Your task to perform on an android device: see creations saved in the google photos Image 0: 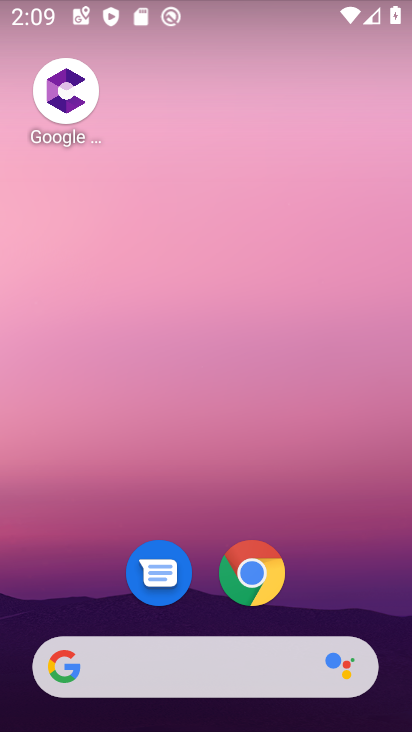
Step 0: drag from (115, 546) to (273, 145)
Your task to perform on an android device: see creations saved in the google photos Image 1: 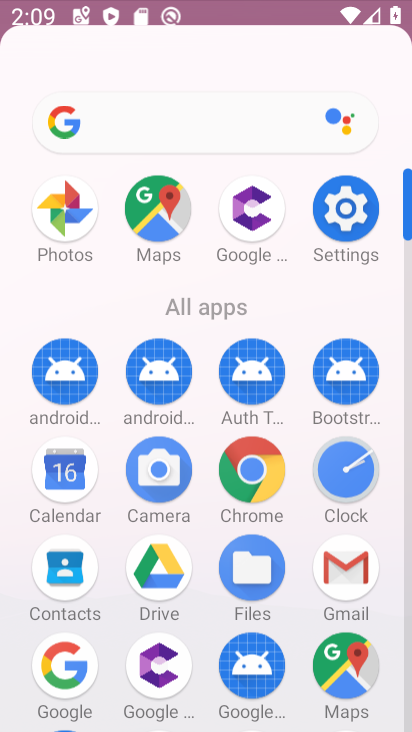
Step 1: drag from (241, 621) to (307, 409)
Your task to perform on an android device: see creations saved in the google photos Image 2: 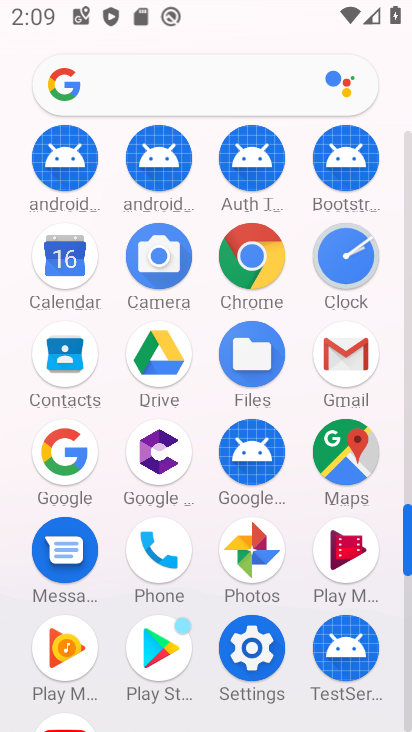
Step 2: click (262, 554)
Your task to perform on an android device: see creations saved in the google photos Image 3: 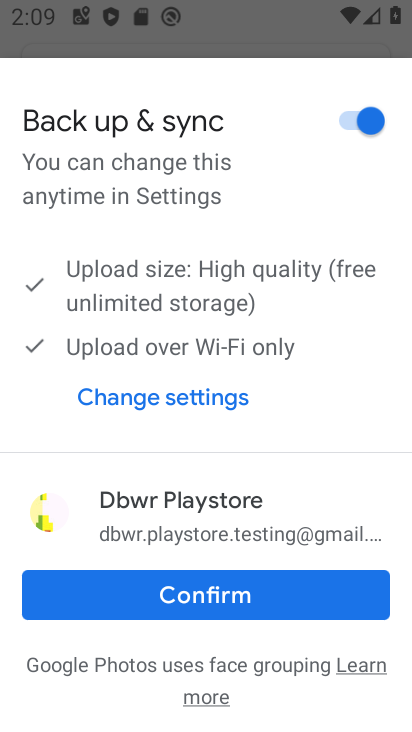
Step 3: click (231, 600)
Your task to perform on an android device: see creations saved in the google photos Image 4: 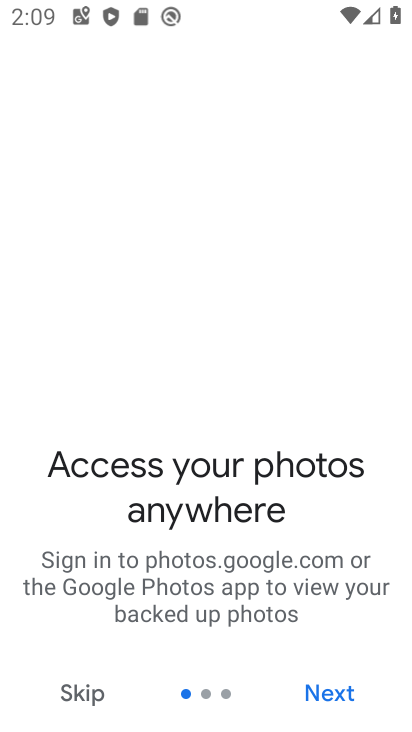
Step 4: click (323, 686)
Your task to perform on an android device: see creations saved in the google photos Image 5: 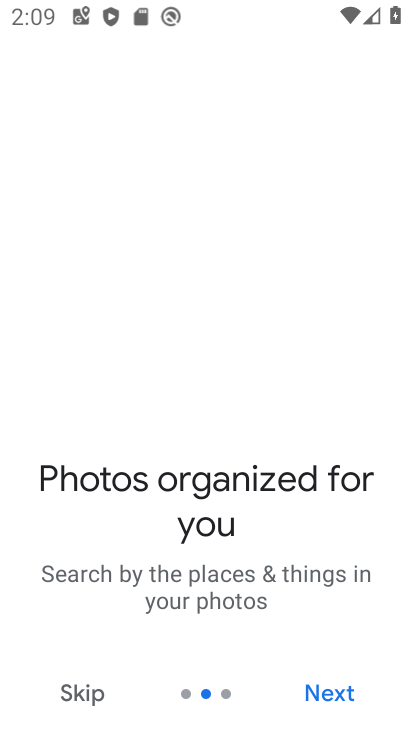
Step 5: click (333, 698)
Your task to perform on an android device: see creations saved in the google photos Image 6: 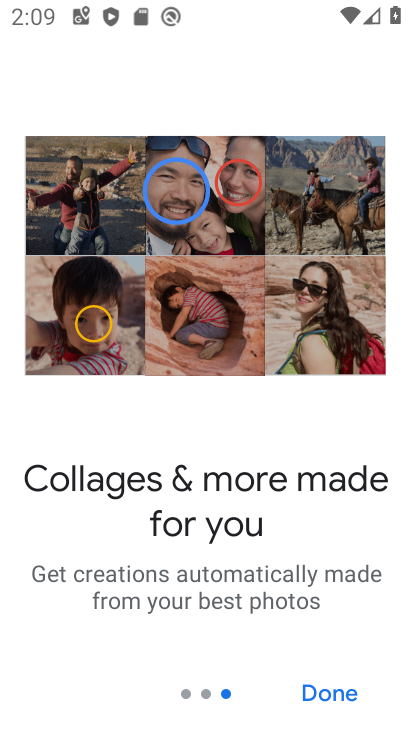
Step 6: click (333, 698)
Your task to perform on an android device: see creations saved in the google photos Image 7: 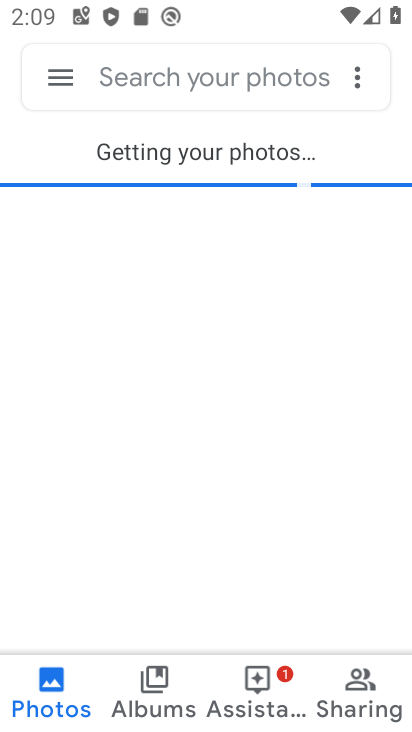
Step 7: click (193, 90)
Your task to perform on an android device: see creations saved in the google photos Image 8: 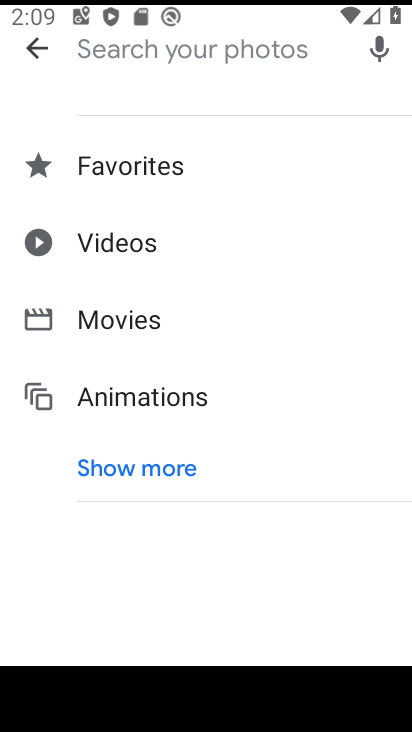
Step 8: click (158, 470)
Your task to perform on an android device: see creations saved in the google photos Image 9: 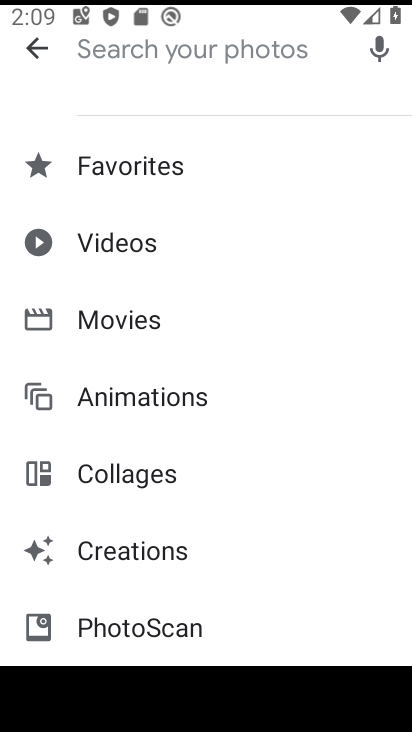
Step 9: click (169, 559)
Your task to perform on an android device: see creations saved in the google photos Image 10: 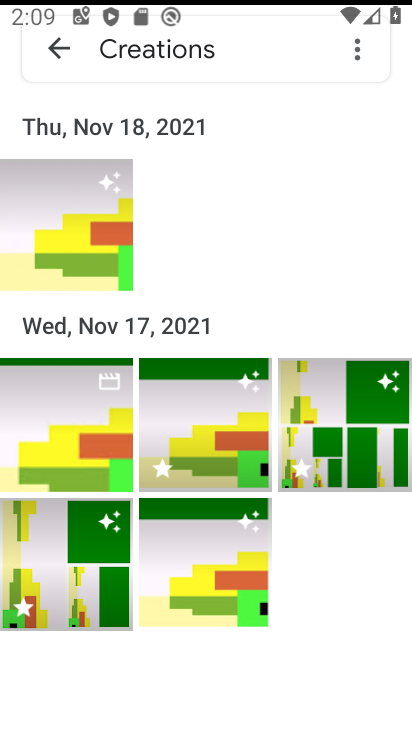
Step 10: task complete